Your task to perform on an android device: turn off airplane mode Image 0: 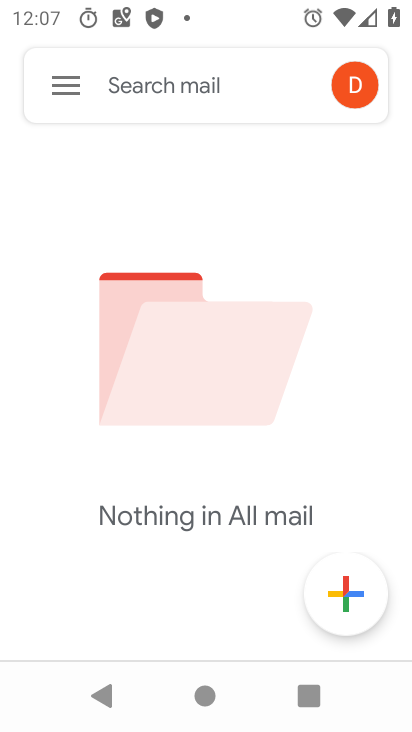
Step 0: click (78, 82)
Your task to perform on an android device: turn off airplane mode Image 1: 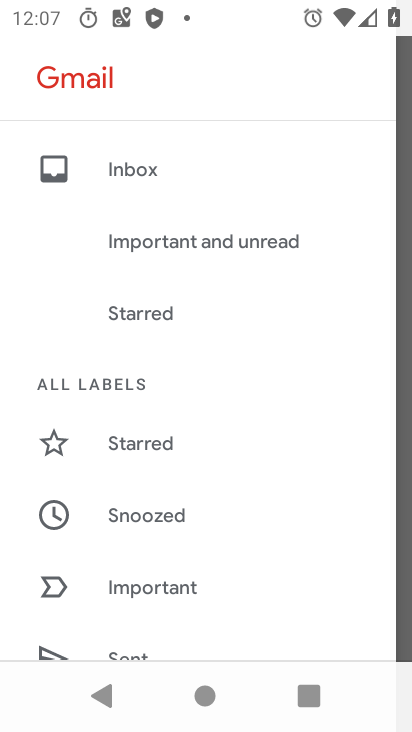
Step 1: press home button
Your task to perform on an android device: turn off airplane mode Image 2: 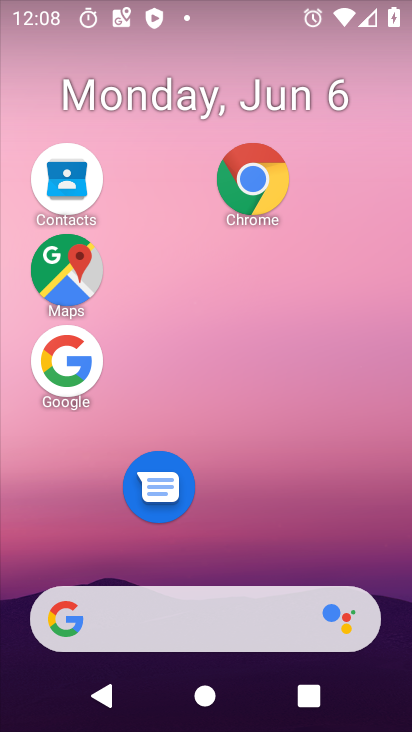
Step 2: drag from (223, 504) to (309, 50)
Your task to perform on an android device: turn off airplane mode Image 3: 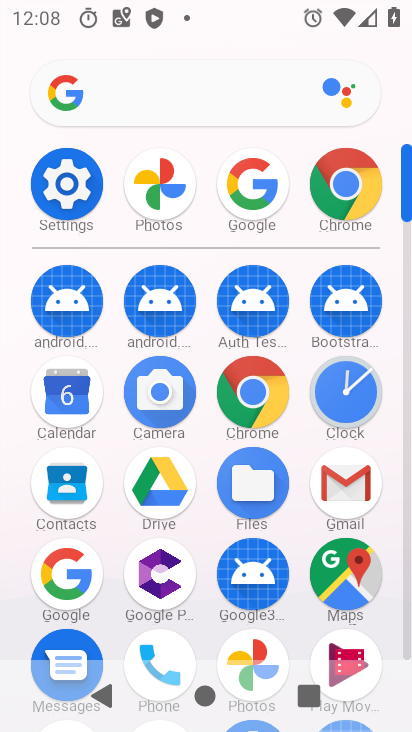
Step 3: click (70, 191)
Your task to perform on an android device: turn off airplane mode Image 4: 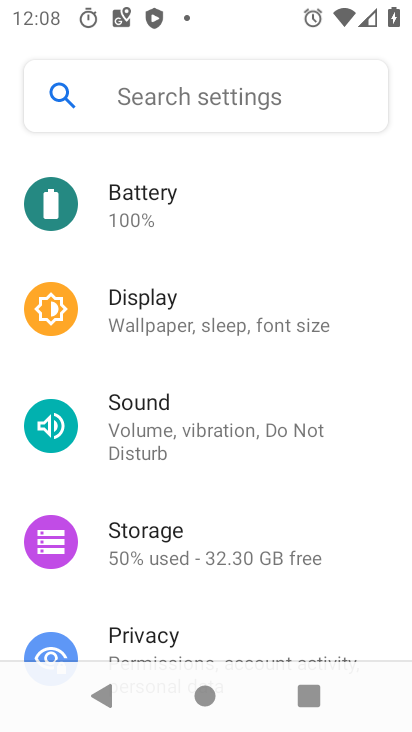
Step 4: drag from (178, 570) to (209, 352)
Your task to perform on an android device: turn off airplane mode Image 5: 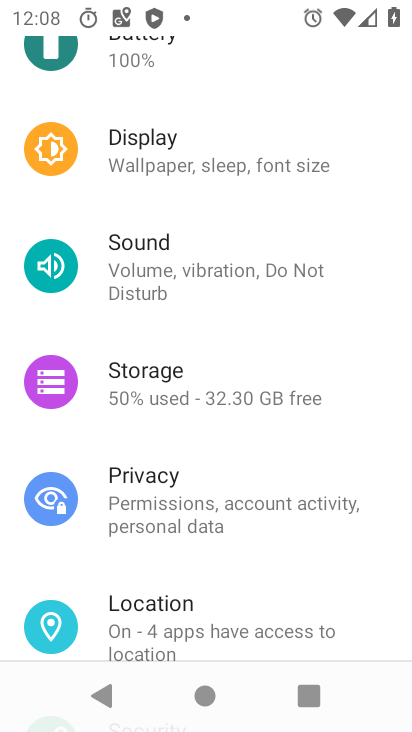
Step 5: drag from (221, 331) to (194, 614)
Your task to perform on an android device: turn off airplane mode Image 6: 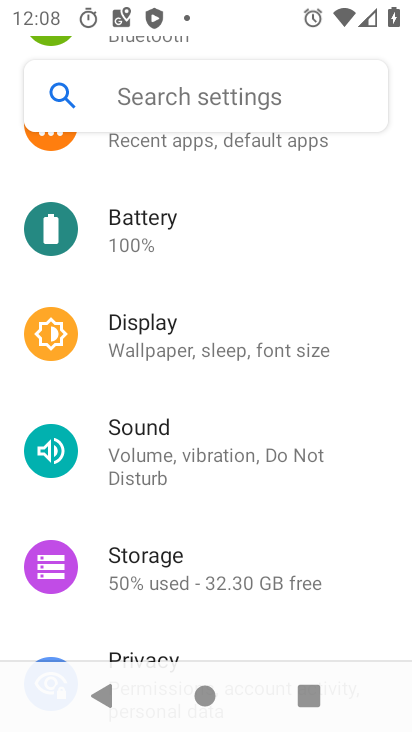
Step 6: drag from (245, 272) to (220, 645)
Your task to perform on an android device: turn off airplane mode Image 7: 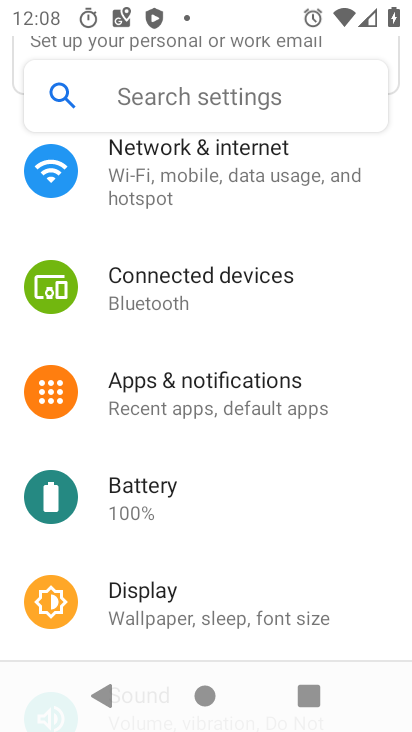
Step 7: click (265, 195)
Your task to perform on an android device: turn off airplane mode Image 8: 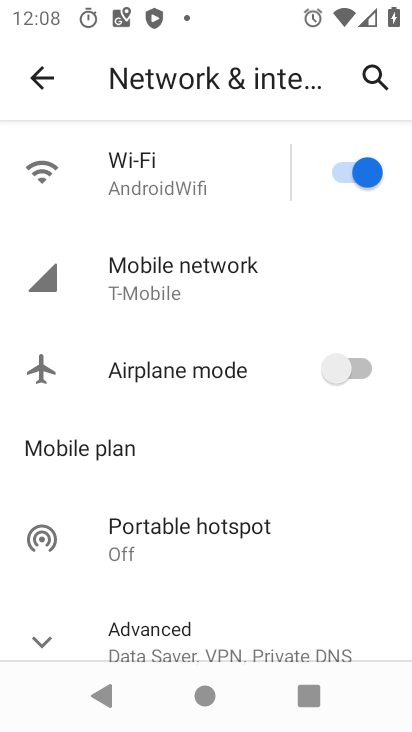
Step 8: task complete